Your task to perform on an android device: turn off data saver in the chrome app Image 0: 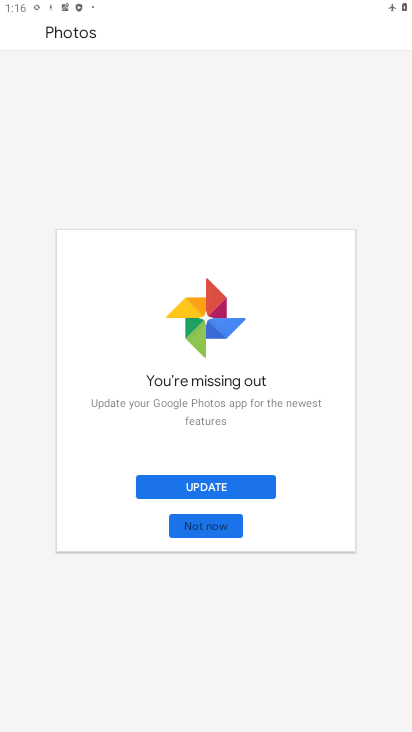
Step 0: press home button
Your task to perform on an android device: turn off data saver in the chrome app Image 1: 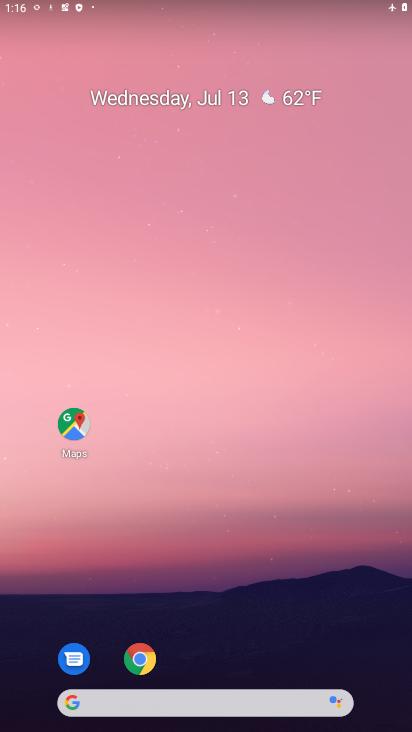
Step 1: click (137, 660)
Your task to perform on an android device: turn off data saver in the chrome app Image 2: 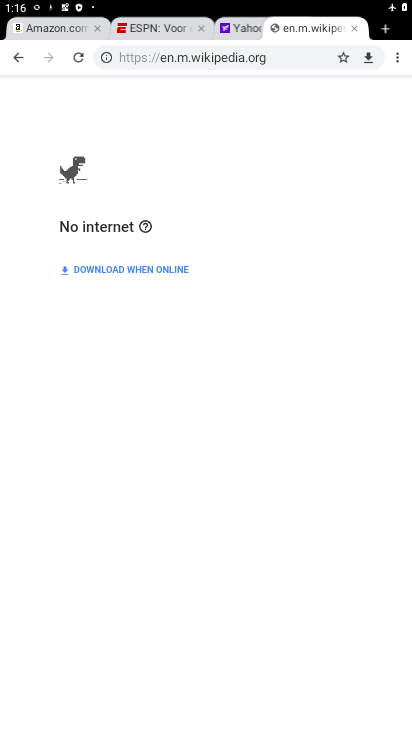
Step 2: click (399, 59)
Your task to perform on an android device: turn off data saver in the chrome app Image 3: 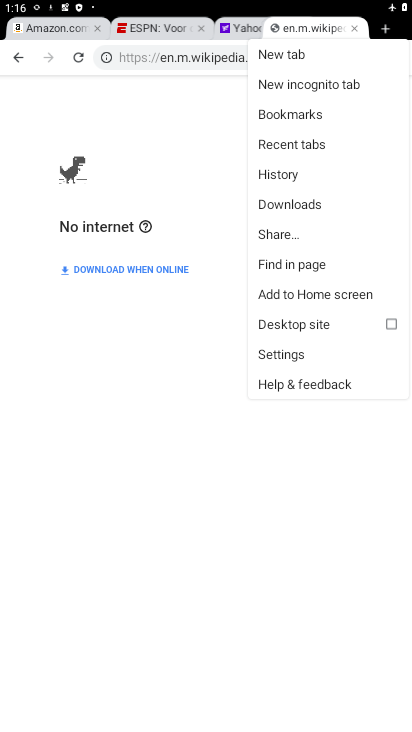
Step 3: click (275, 350)
Your task to perform on an android device: turn off data saver in the chrome app Image 4: 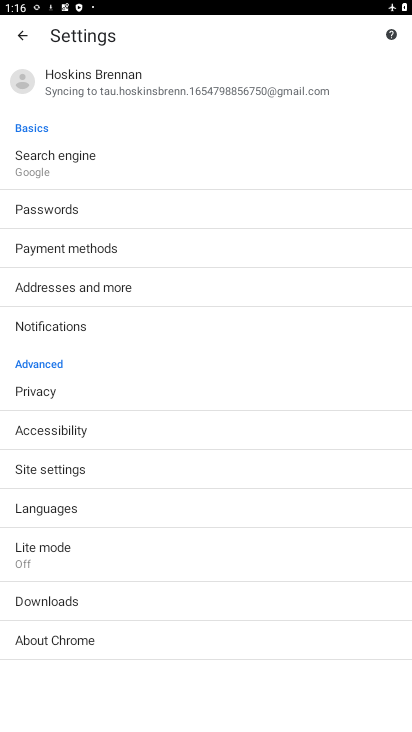
Step 4: click (35, 543)
Your task to perform on an android device: turn off data saver in the chrome app Image 5: 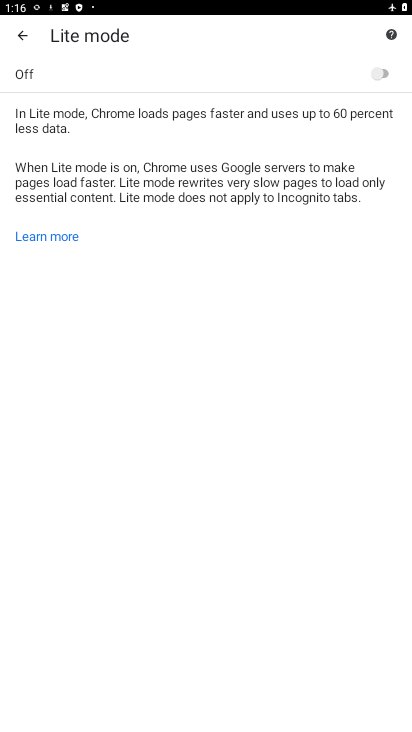
Step 5: task complete